Your task to perform on an android device: toggle airplane mode Image 0: 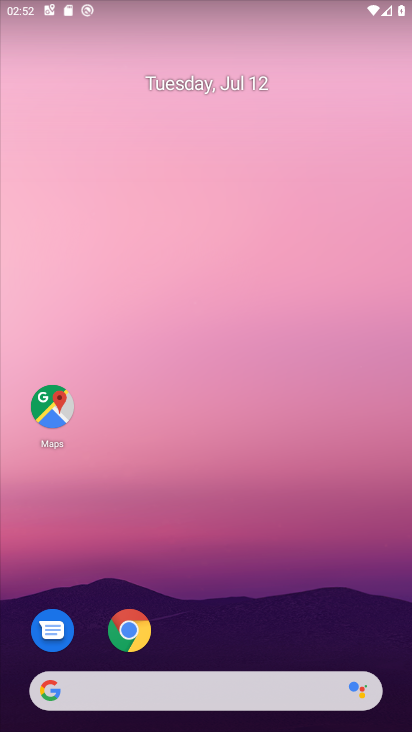
Step 0: drag from (381, 650) to (323, 112)
Your task to perform on an android device: toggle airplane mode Image 1: 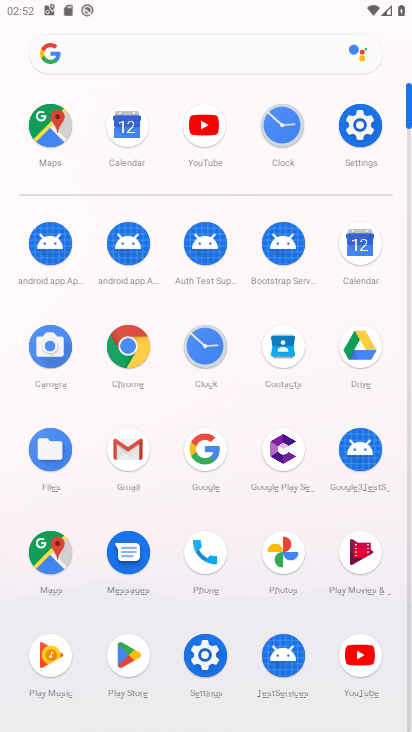
Step 1: click (204, 654)
Your task to perform on an android device: toggle airplane mode Image 2: 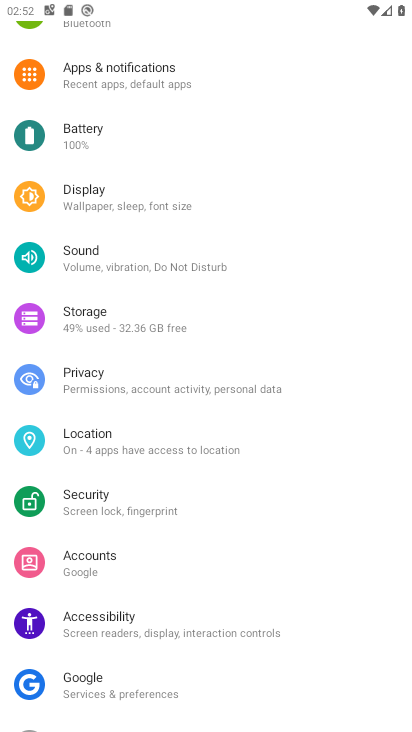
Step 2: drag from (298, 119) to (323, 383)
Your task to perform on an android device: toggle airplane mode Image 3: 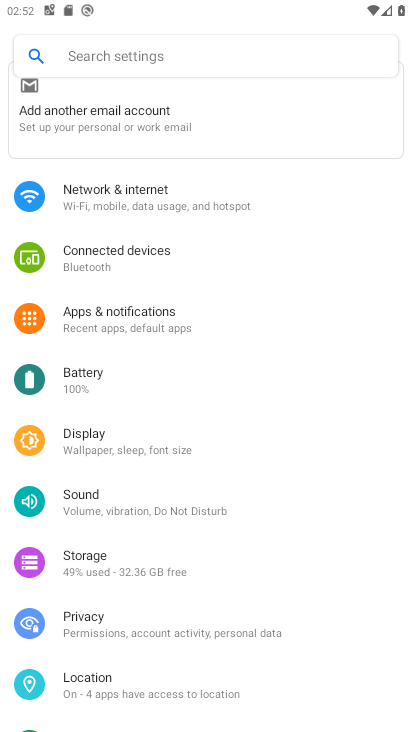
Step 3: click (114, 194)
Your task to perform on an android device: toggle airplane mode Image 4: 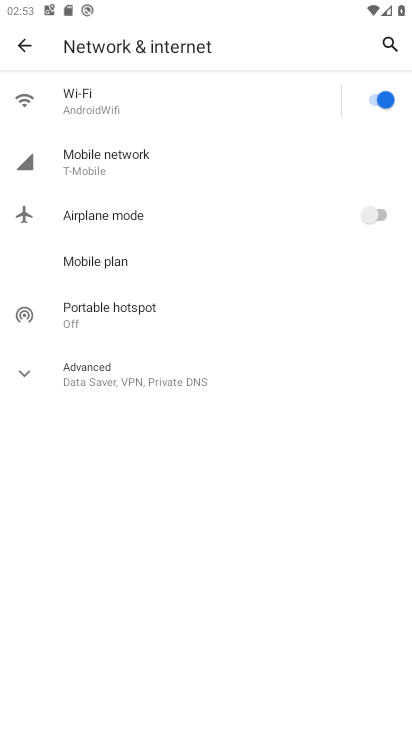
Step 4: click (384, 211)
Your task to perform on an android device: toggle airplane mode Image 5: 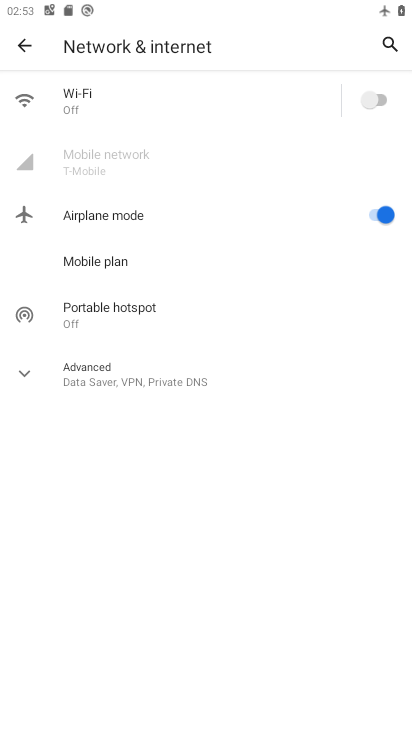
Step 5: task complete